Your task to perform on an android device: uninstall "Pandora - Music & Podcasts" Image 0: 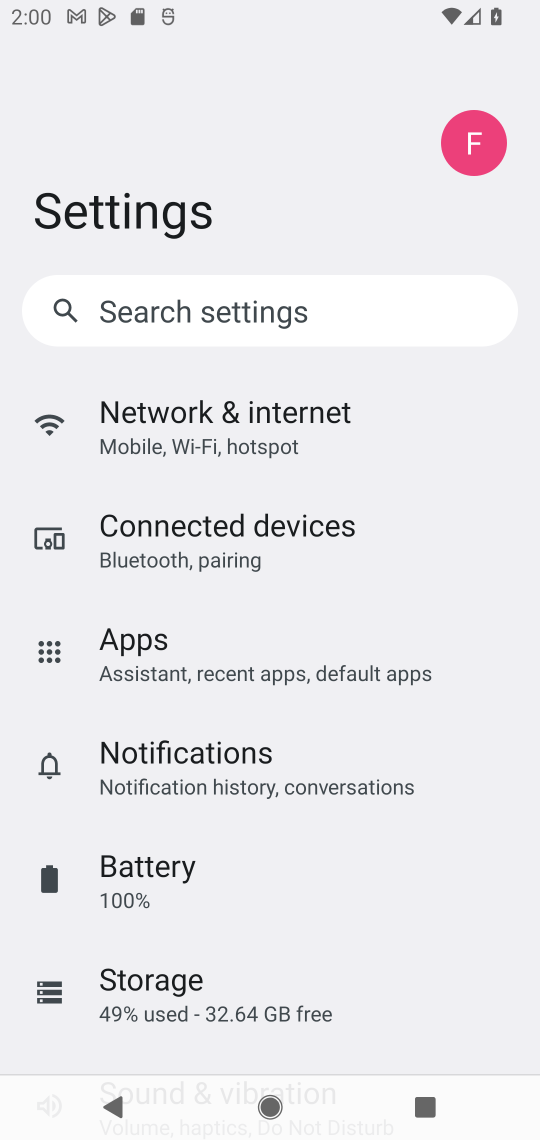
Step 0: press home button
Your task to perform on an android device: uninstall "Pandora - Music & Podcasts" Image 1: 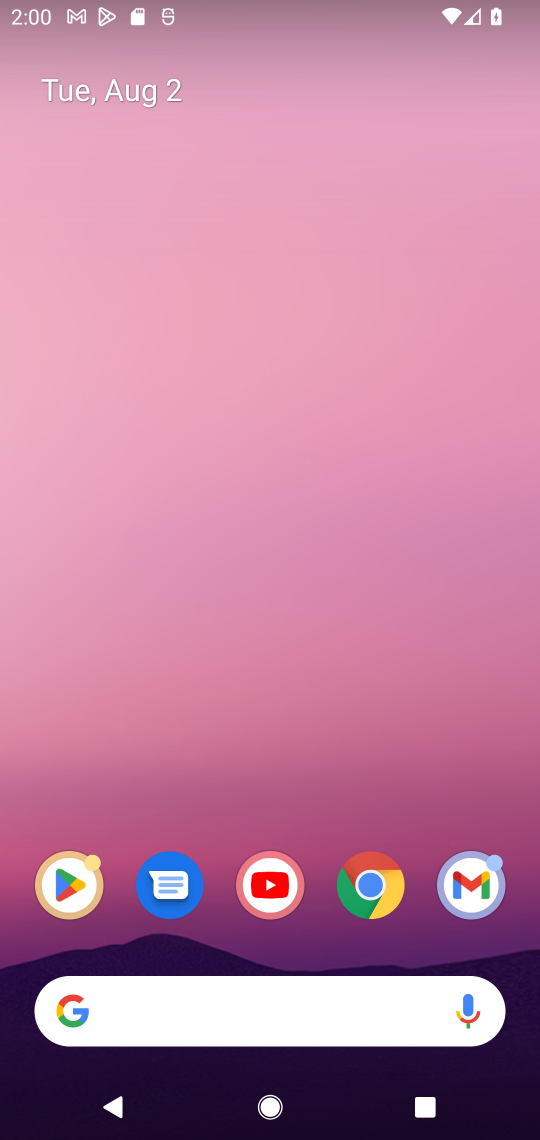
Step 1: click (71, 877)
Your task to perform on an android device: uninstall "Pandora - Music & Podcasts" Image 2: 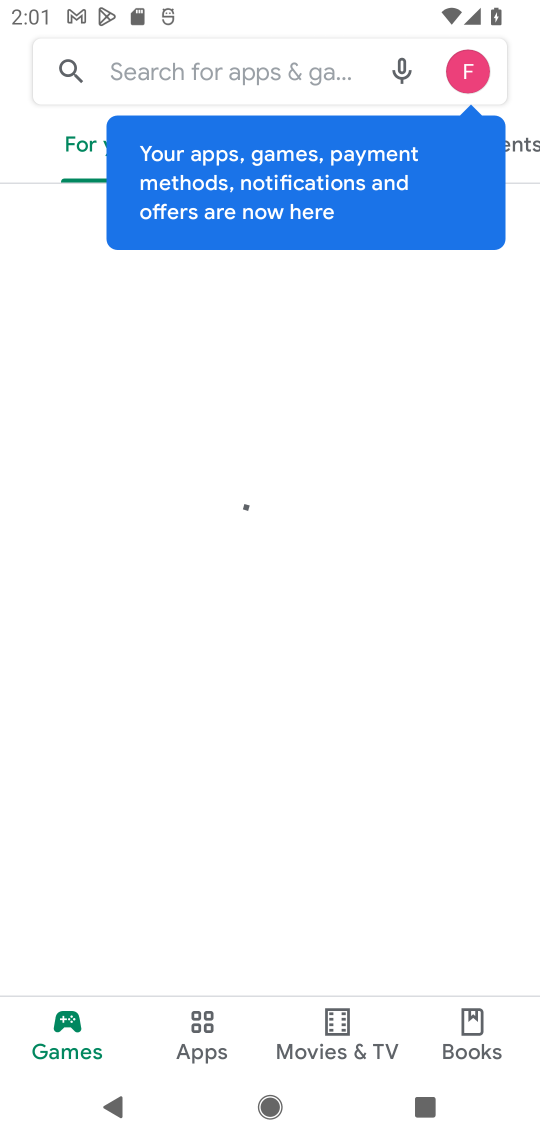
Step 2: task complete